Your task to perform on an android device: stop showing notifications on the lock screen Image 0: 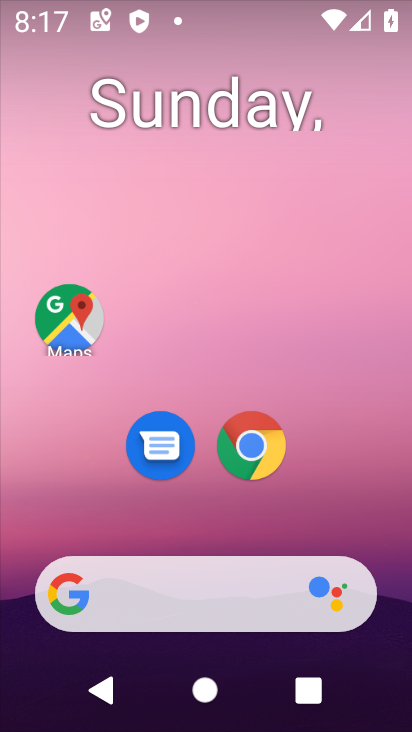
Step 0: drag from (50, 731) to (259, 277)
Your task to perform on an android device: stop showing notifications on the lock screen Image 1: 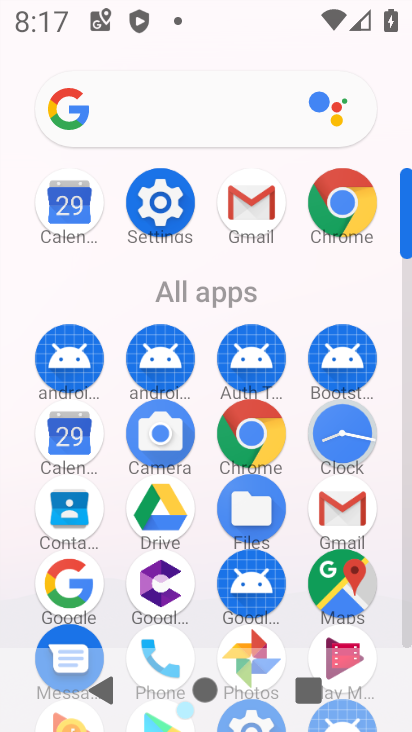
Step 1: click (169, 195)
Your task to perform on an android device: stop showing notifications on the lock screen Image 2: 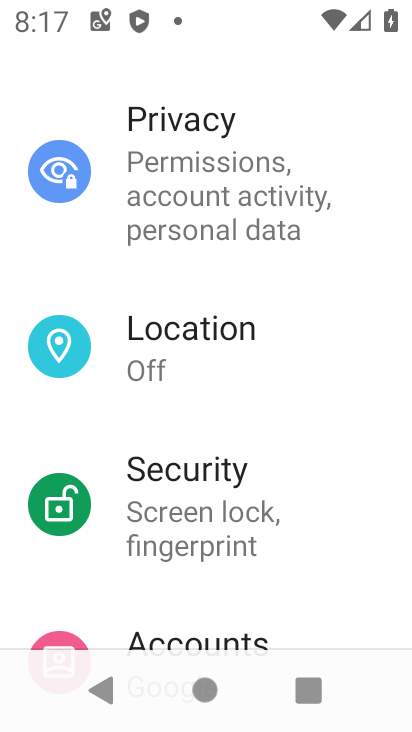
Step 2: drag from (236, 166) to (59, 629)
Your task to perform on an android device: stop showing notifications on the lock screen Image 3: 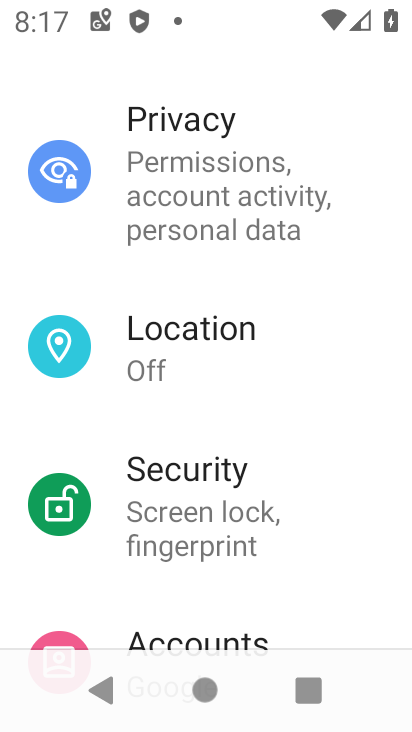
Step 3: drag from (191, 211) to (127, 582)
Your task to perform on an android device: stop showing notifications on the lock screen Image 4: 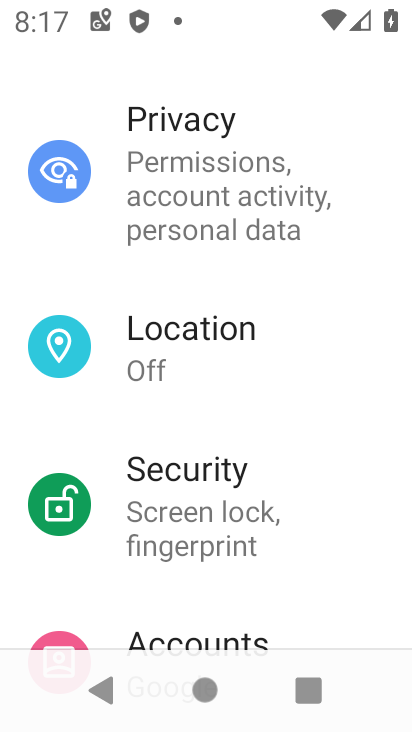
Step 4: drag from (114, 212) to (89, 576)
Your task to perform on an android device: stop showing notifications on the lock screen Image 5: 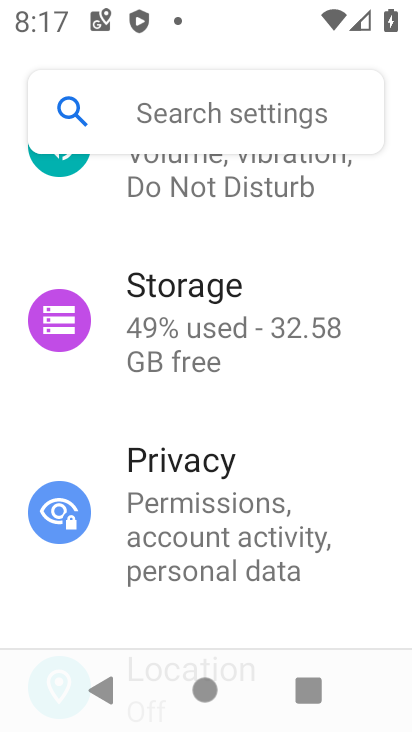
Step 5: drag from (164, 192) to (130, 563)
Your task to perform on an android device: stop showing notifications on the lock screen Image 6: 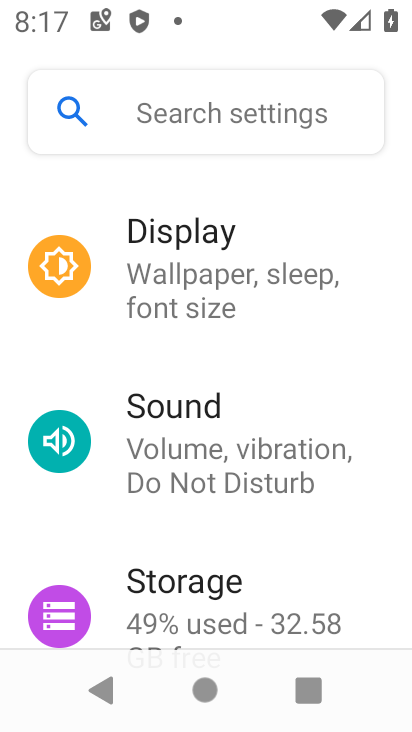
Step 6: drag from (181, 273) to (118, 665)
Your task to perform on an android device: stop showing notifications on the lock screen Image 7: 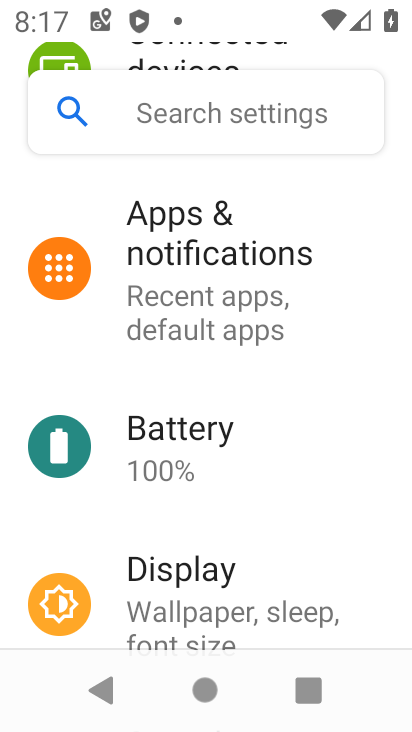
Step 7: click (106, 274)
Your task to perform on an android device: stop showing notifications on the lock screen Image 8: 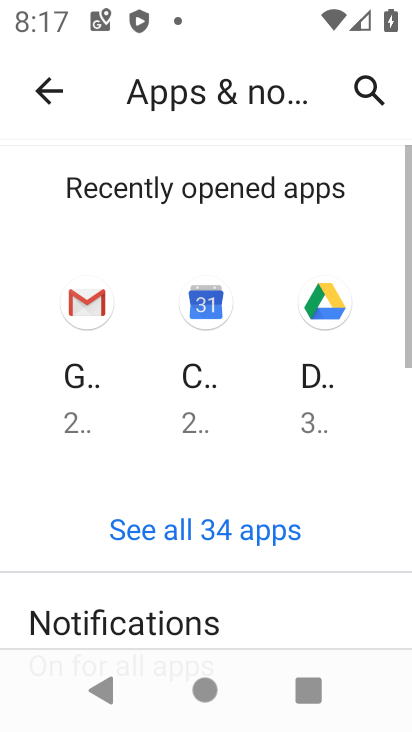
Step 8: click (106, 273)
Your task to perform on an android device: stop showing notifications on the lock screen Image 9: 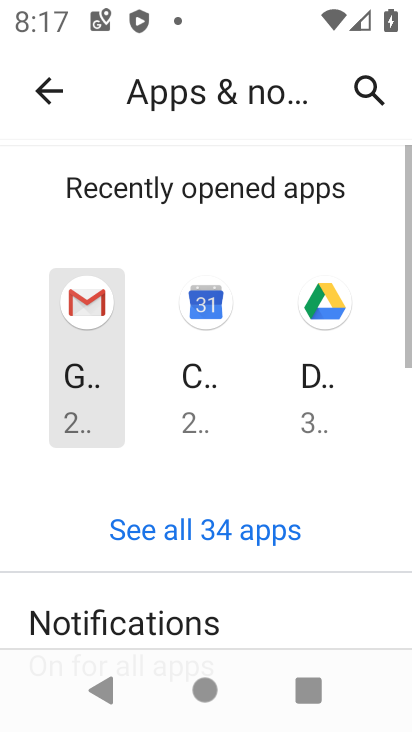
Step 9: drag from (26, 462) to (241, 77)
Your task to perform on an android device: stop showing notifications on the lock screen Image 10: 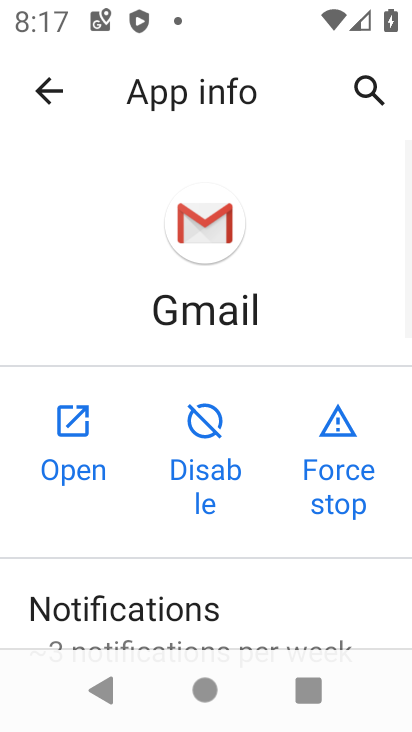
Step 10: drag from (17, 488) to (236, 111)
Your task to perform on an android device: stop showing notifications on the lock screen Image 11: 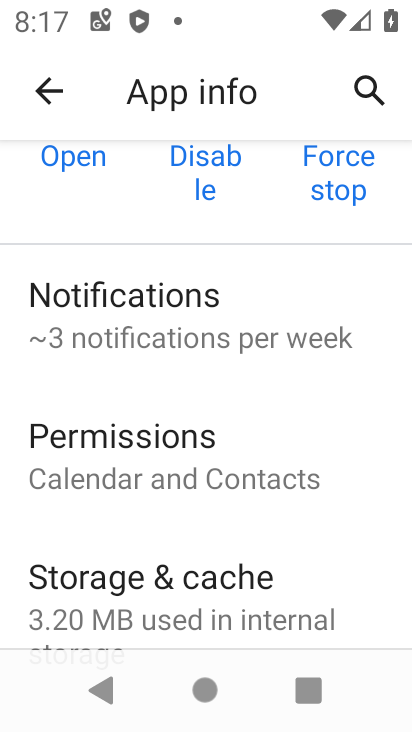
Step 11: drag from (24, 477) to (260, 106)
Your task to perform on an android device: stop showing notifications on the lock screen Image 12: 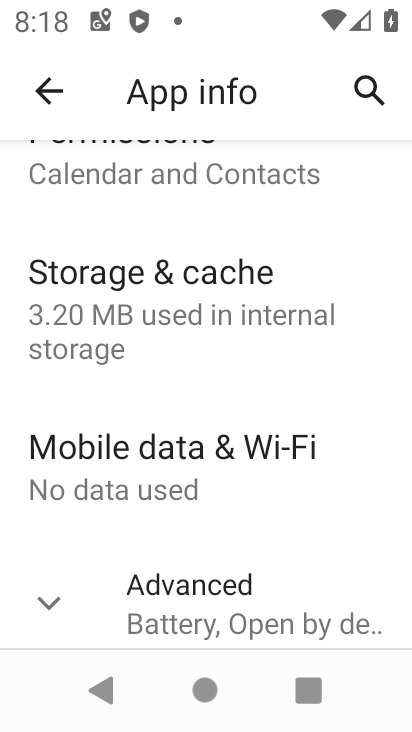
Step 12: press back button
Your task to perform on an android device: stop showing notifications on the lock screen Image 13: 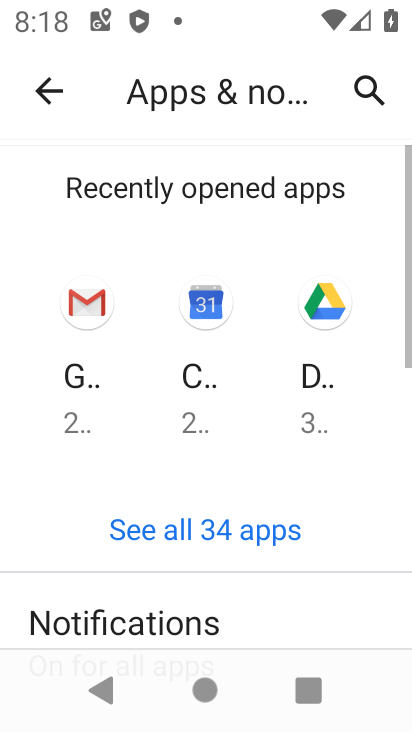
Step 13: drag from (26, 560) to (160, 312)
Your task to perform on an android device: stop showing notifications on the lock screen Image 14: 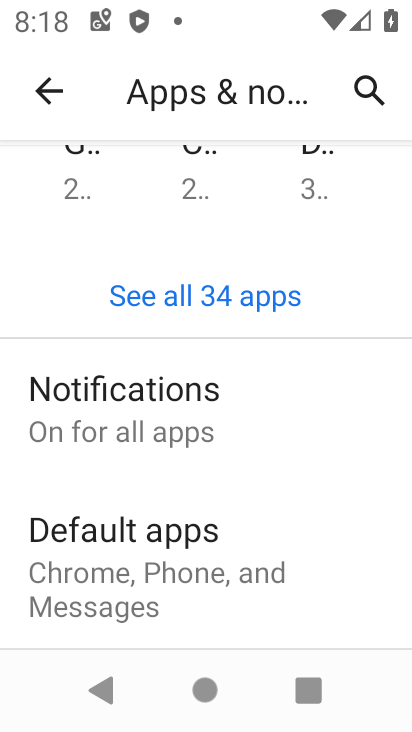
Step 14: drag from (33, 473) to (171, 197)
Your task to perform on an android device: stop showing notifications on the lock screen Image 15: 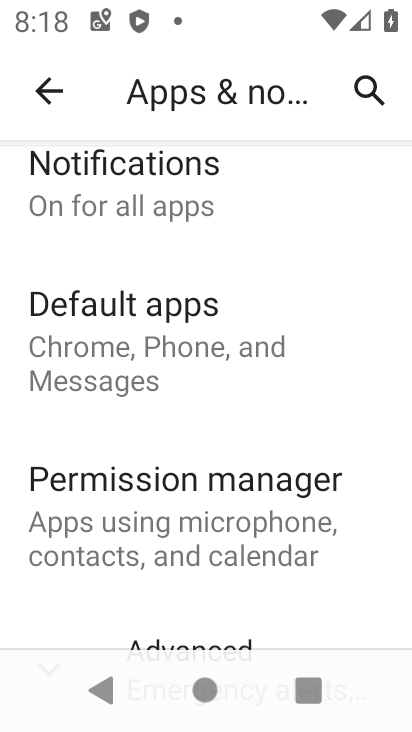
Step 15: drag from (11, 422) to (179, 106)
Your task to perform on an android device: stop showing notifications on the lock screen Image 16: 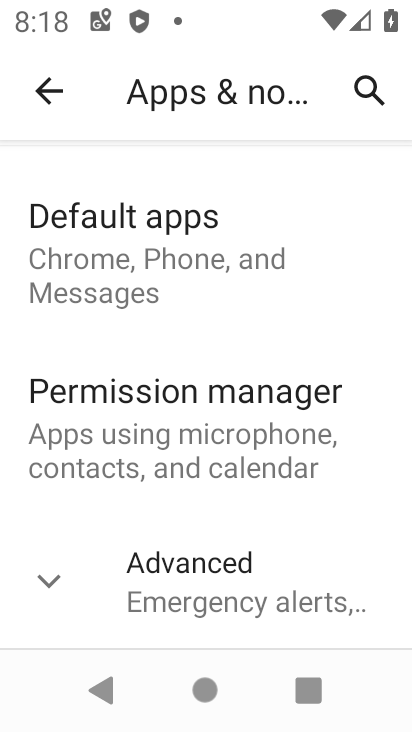
Step 16: click (175, 579)
Your task to perform on an android device: stop showing notifications on the lock screen Image 17: 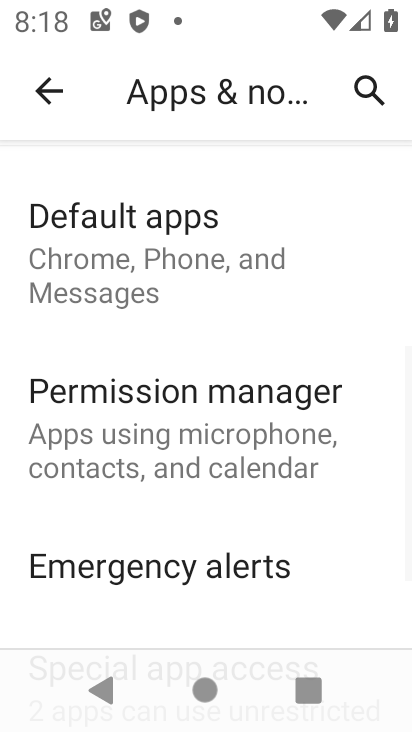
Step 17: drag from (23, 621) to (122, 255)
Your task to perform on an android device: stop showing notifications on the lock screen Image 18: 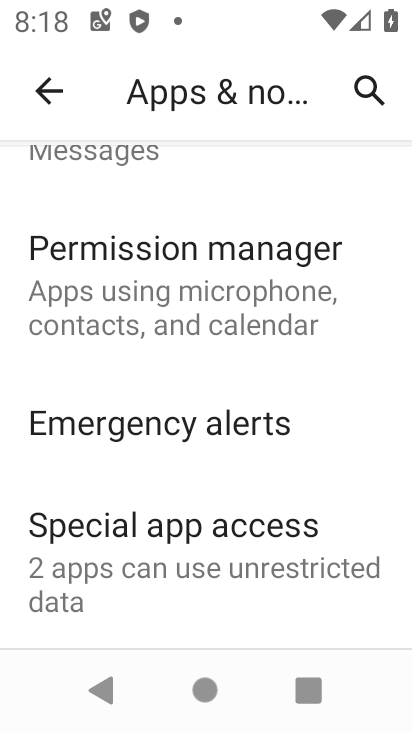
Step 18: drag from (128, 233) to (104, 587)
Your task to perform on an android device: stop showing notifications on the lock screen Image 19: 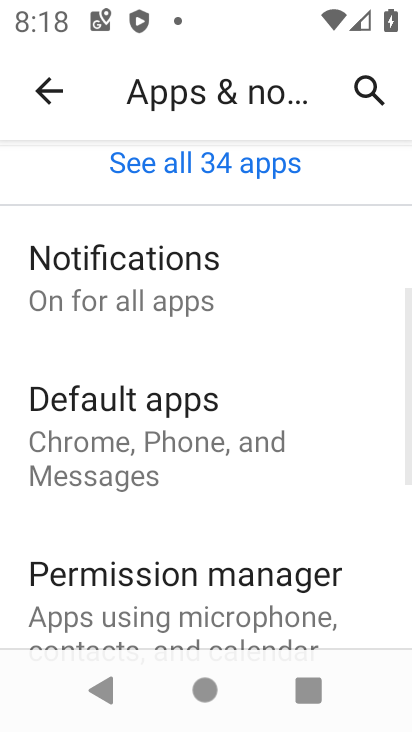
Step 19: drag from (182, 260) to (131, 608)
Your task to perform on an android device: stop showing notifications on the lock screen Image 20: 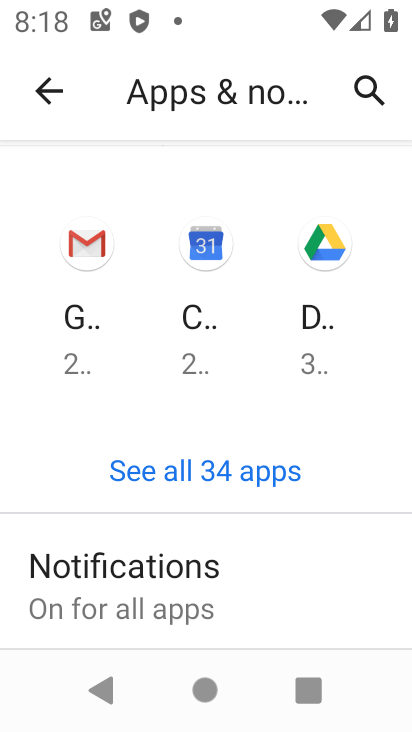
Step 20: click (105, 596)
Your task to perform on an android device: stop showing notifications on the lock screen Image 21: 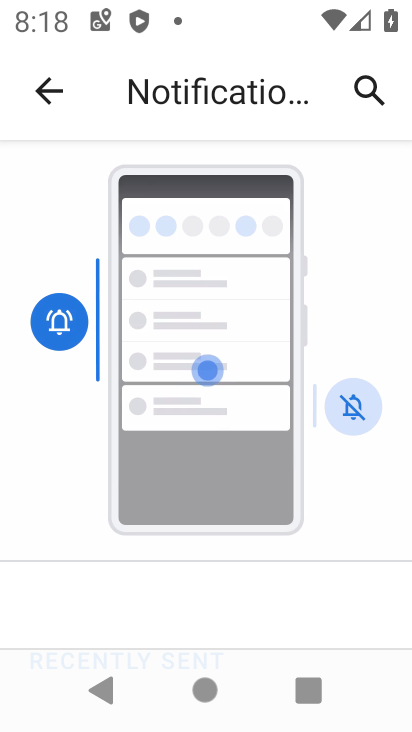
Step 21: drag from (50, 332) to (154, 117)
Your task to perform on an android device: stop showing notifications on the lock screen Image 22: 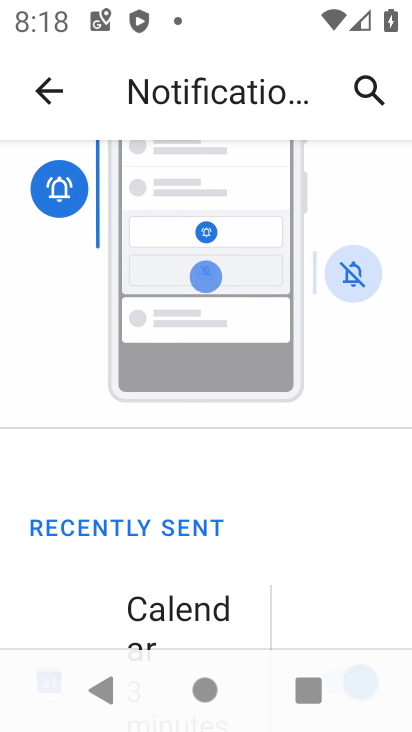
Step 22: drag from (6, 533) to (256, 87)
Your task to perform on an android device: stop showing notifications on the lock screen Image 23: 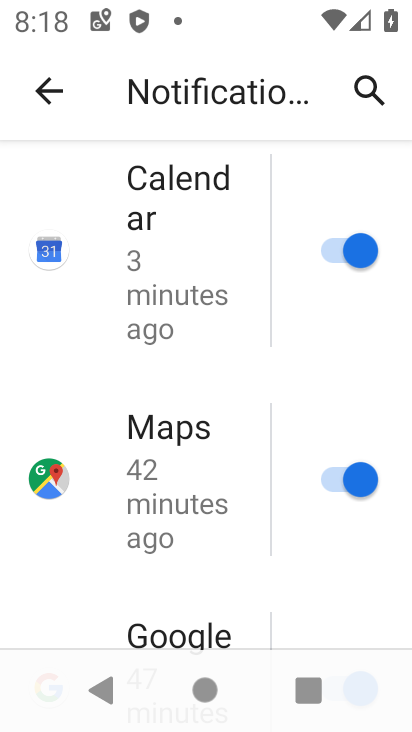
Step 23: drag from (41, 431) to (225, 143)
Your task to perform on an android device: stop showing notifications on the lock screen Image 24: 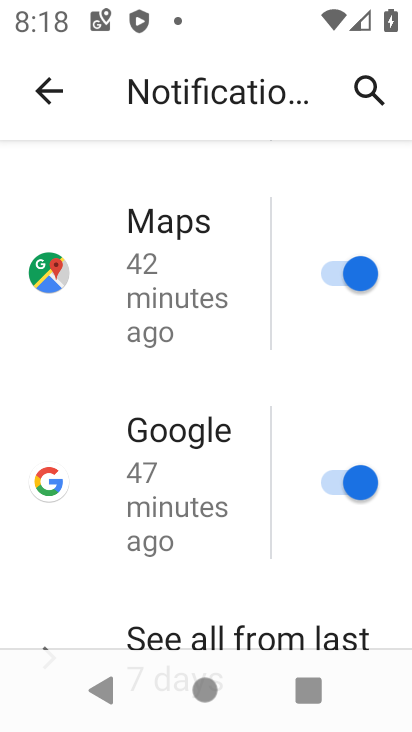
Step 24: drag from (4, 530) to (214, 242)
Your task to perform on an android device: stop showing notifications on the lock screen Image 25: 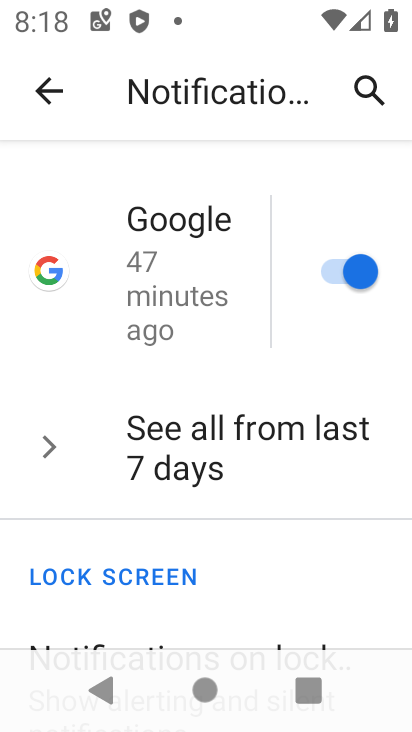
Step 25: drag from (42, 482) to (197, 232)
Your task to perform on an android device: stop showing notifications on the lock screen Image 26: 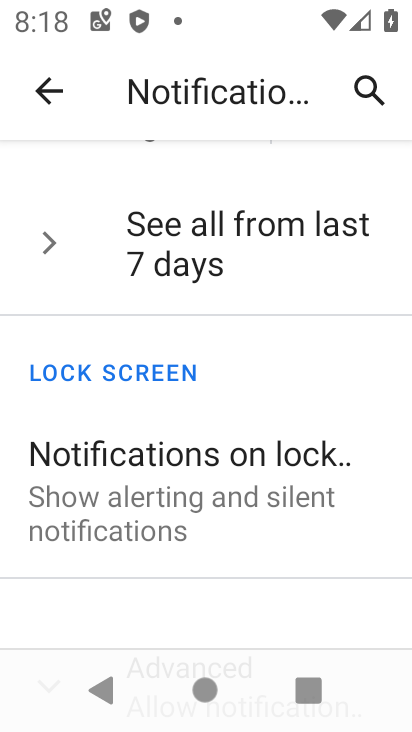
Step 26: click (168, 488)
Your task to perform on an android device: stop showing notifications on the lock screen Image 27: 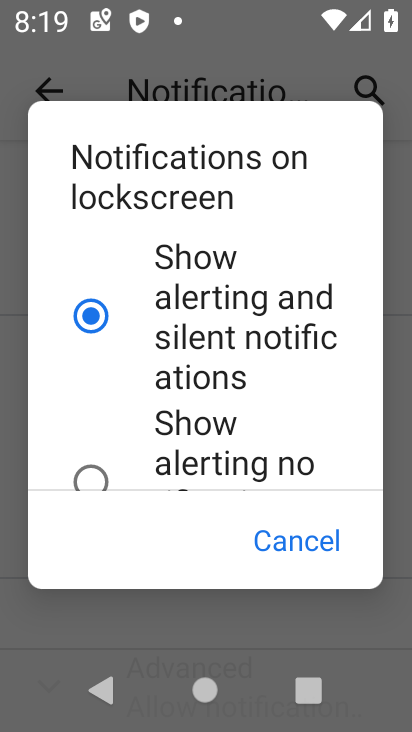
Step 27: drag from (48, 460) to (219, 132)
Your task to perform on an android device: stop showing notifications on the lock screen Image 28: 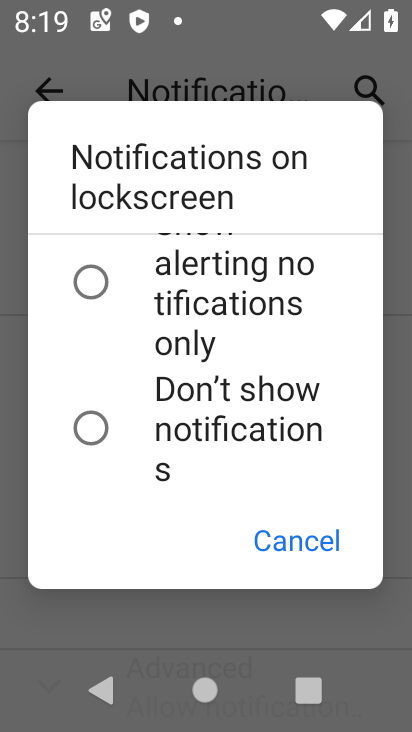
Step 28: click (92, 428)
Your task to perform on an android device: stop showing notifications on the lock screen Image 29: 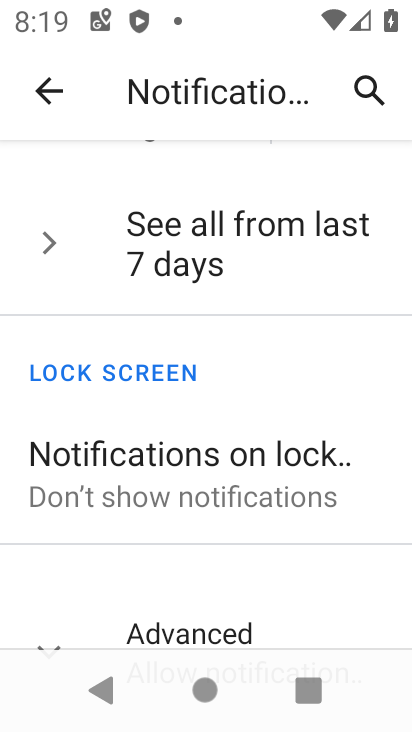
Step 29: task complete